Your task to perform on an android device: Go to Wikipedia Image 0: 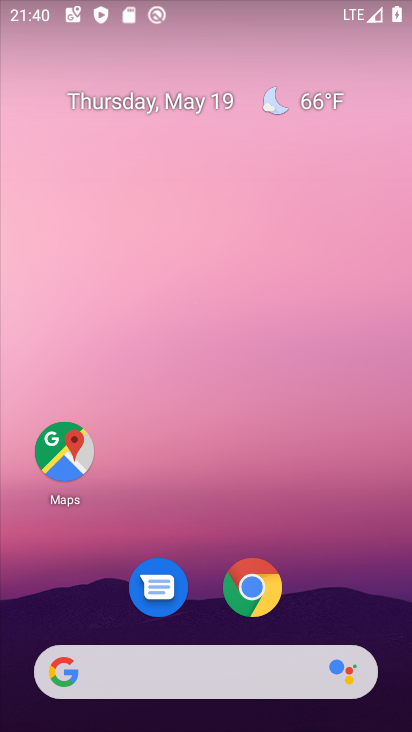
Step 0: press home button
Your task to perform on an android device: Go to Wikipedia Image 1: 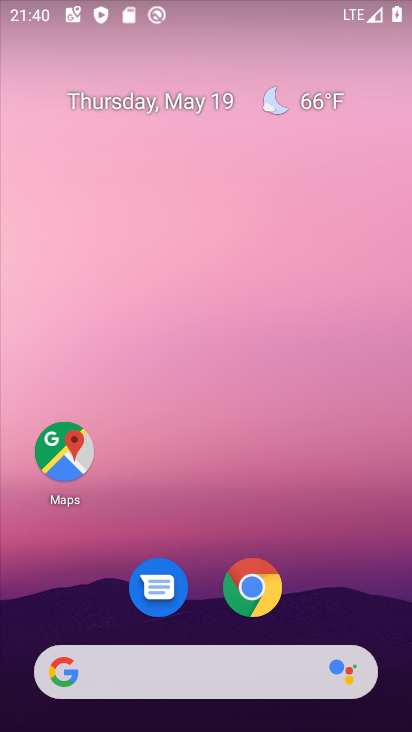
Step 1: drag from (263, 693) to (215, 91)
Your task to perform on an android device: Go to Wikipedia Image 2: 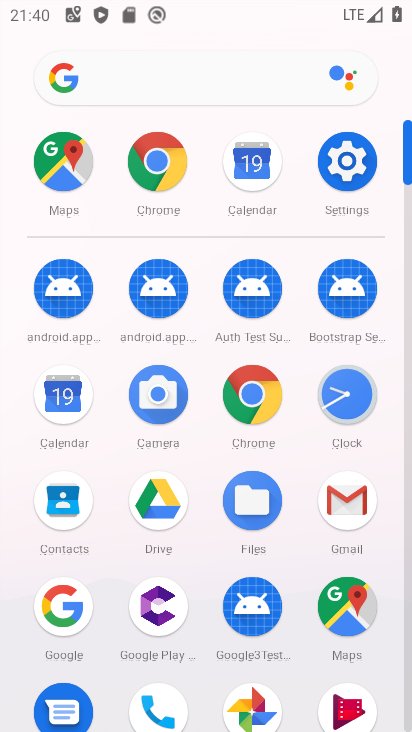
Step 2: click (155, 162)
Your task to perform on an android device: Go to Wikipedia Image 3: 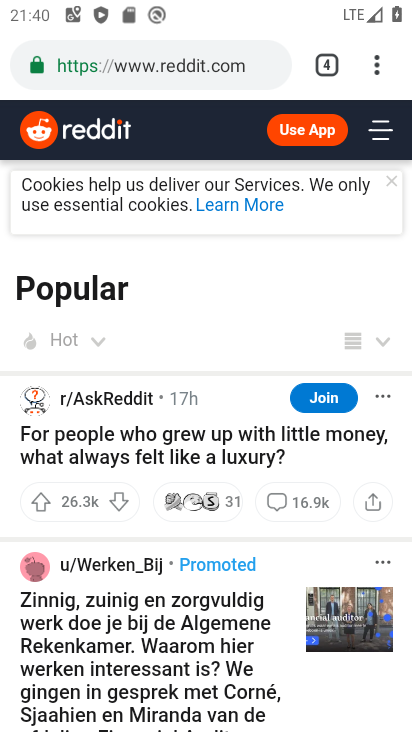
Step 3: click (247, 63)
Your task to perform on an android device: Go to Wikipedia Image 4: 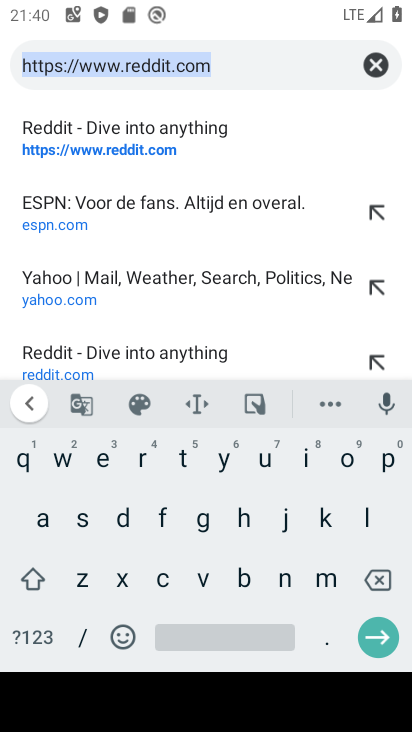
Step 4: click (368, 60)
Your task to perform on an android device: Go to Wikipedia Image 5: 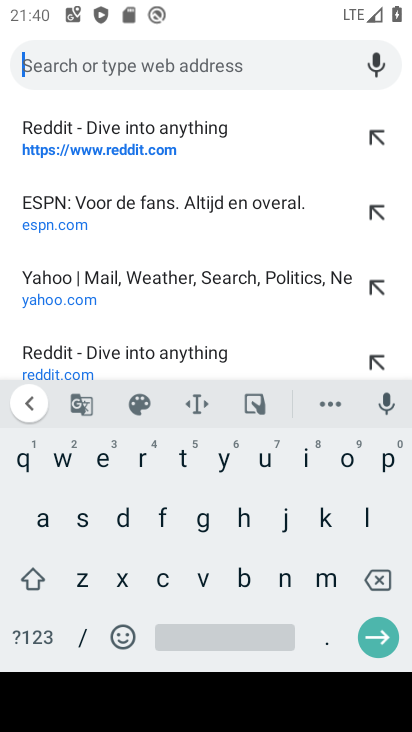
Step 5: click (55, 464)
Your task to perform on an android device: Go to Wikipedia Image 6: 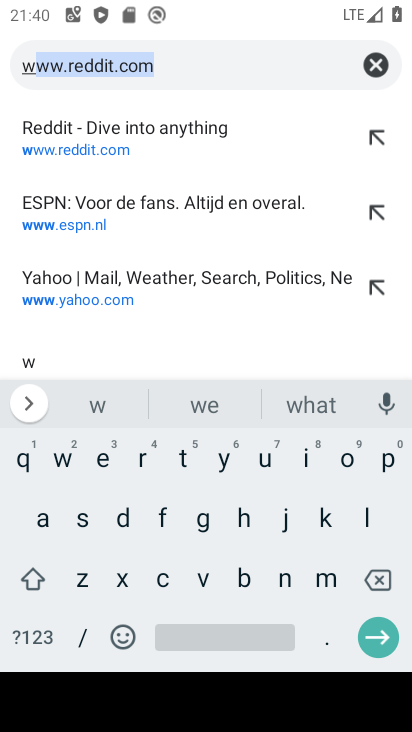
Step 6: click (309, 453)
Your task to perform on an android device: Go to Wikipedia Image 7: 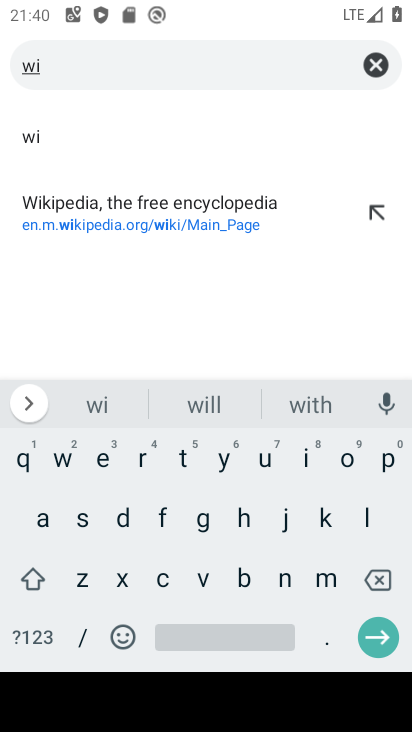
Step 7: click (143, 210)
Your task to perform on an android device: Go to Wikipedia Image 8: 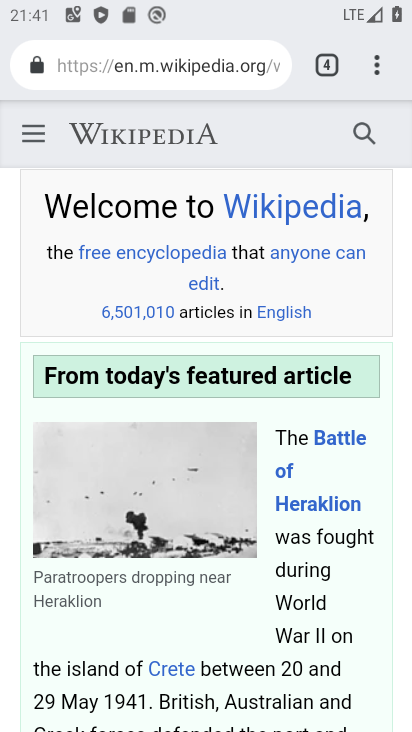
Step 8: task complete